Your task to perform on an android device: Go to network settings Image 0: 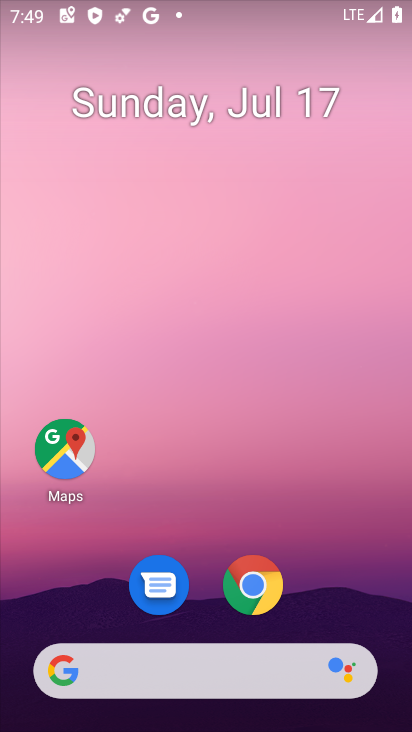
Step 0: drag from (312, 597) to (196, 59)
Your task to perform on an android device: Go to network settings Image 1: 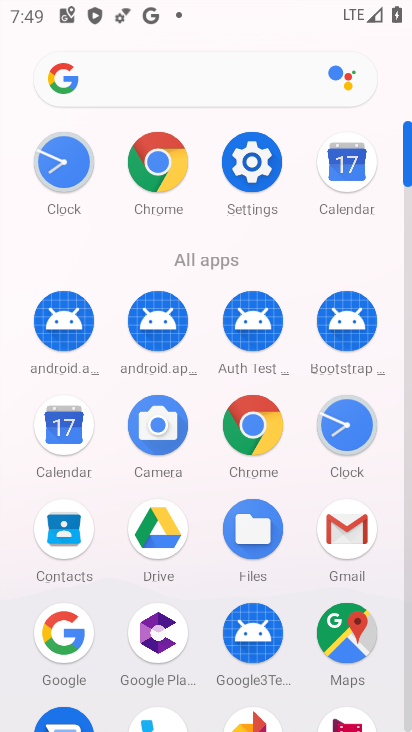
Step 1: click (252, 149)
Your task to perform on an android device: Go to network settings Image 2: 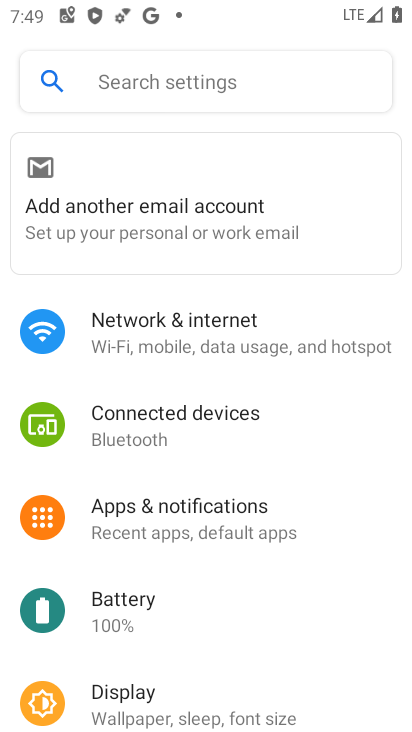
Step 2: click (246, 349)
Your task to perform on an android device: Go to network settings Image 3: 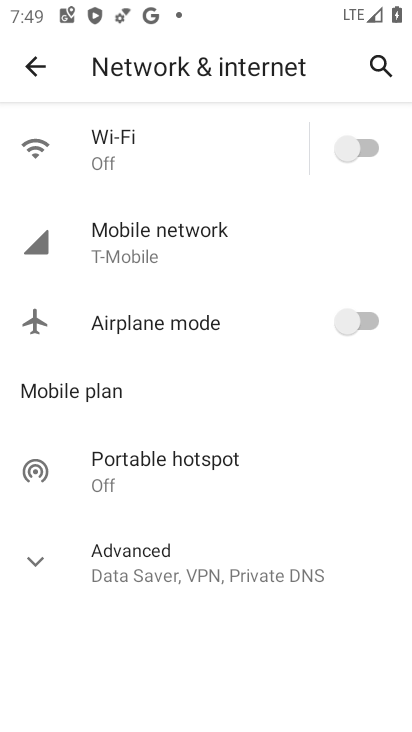
Step 3: task complete